Your task to perform on an android device: change timer sound Image 0: 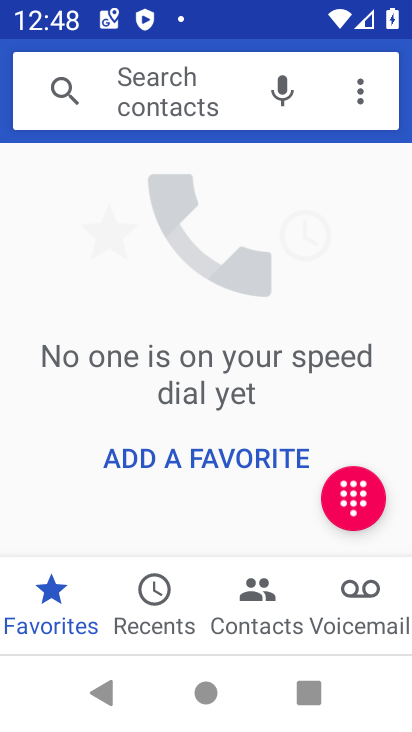
Step 0: press home button
Your task to perform on an android device: change timer sound Image 1: 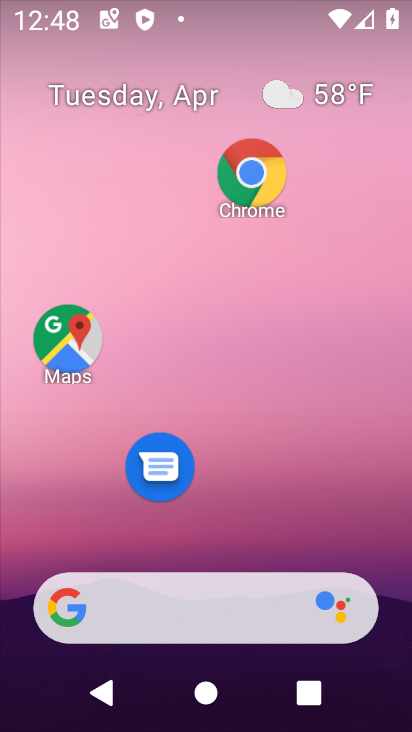
Step 1: drag from (290, 495) to (327, 1)
Your task to perform on an android device: change timer sound Image 2: 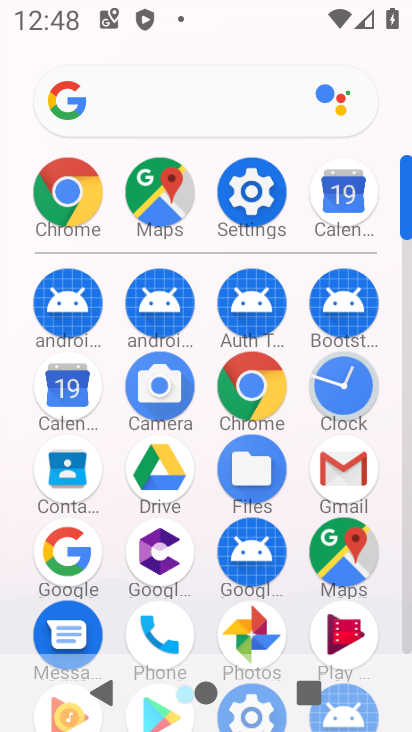
Step 2: click (336, 401)
Your task to perform on an android device: change timer sound Image 3: 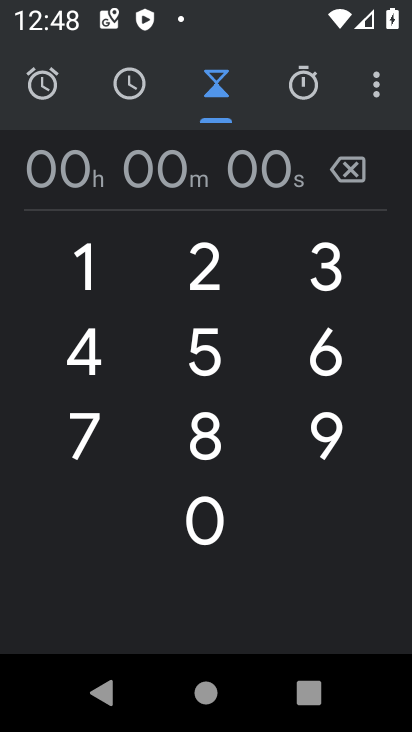
Step 3: click (373, 85)
Your task to perform on an android device: change timer sound Image 4: 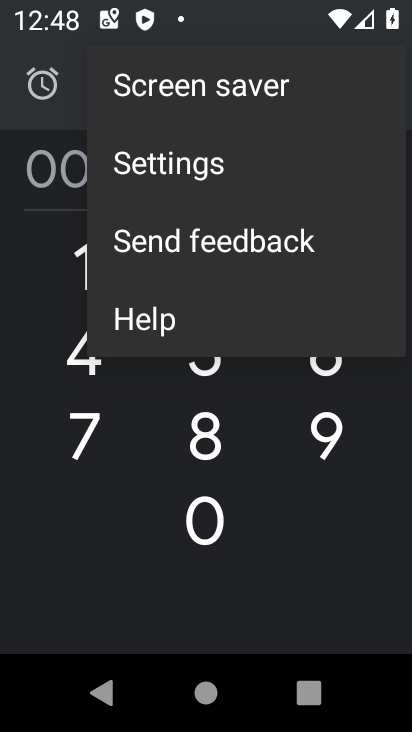
Step 4: click (208, 166)
Your task to perform on an android device: change timer sound Image 5: 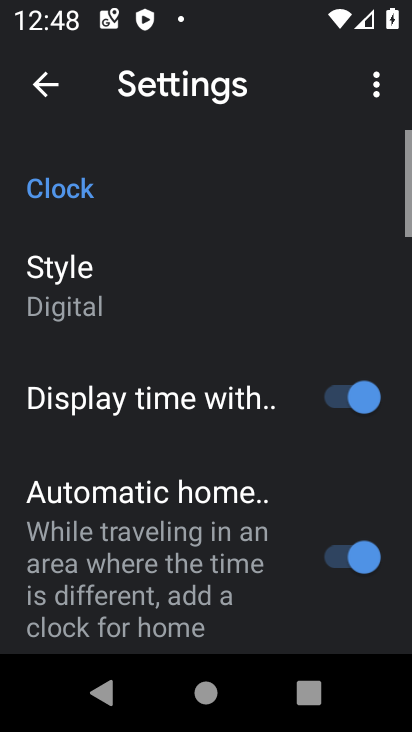
Step 5: drag from (226, 568) to (267, 139)
Your task to perform on an android device: change timer sound Image 6: 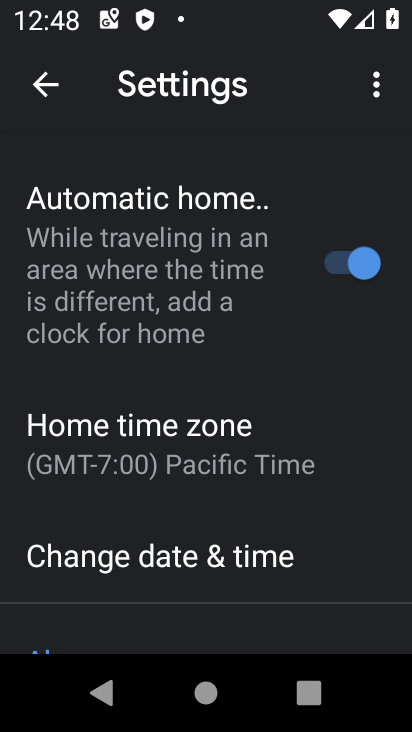
Step 6: drag from (248, 550) to (301, 230)
Your task to perform on an android device: change timer sound Image 7: 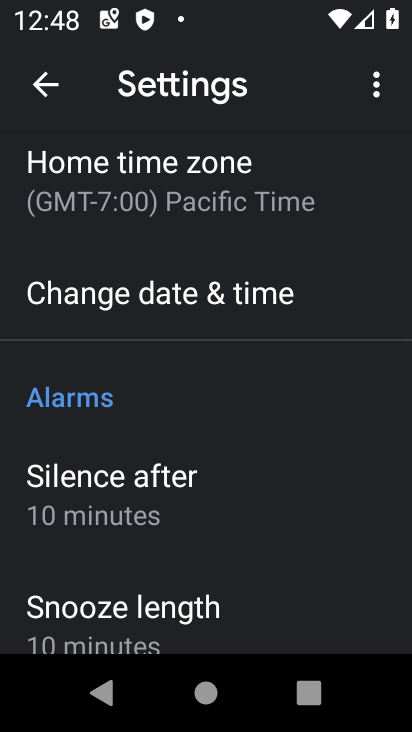
Step 7: drag from (250, 569) to (233, 160)
Your task to perform on an android device: change timer sound Image 8: 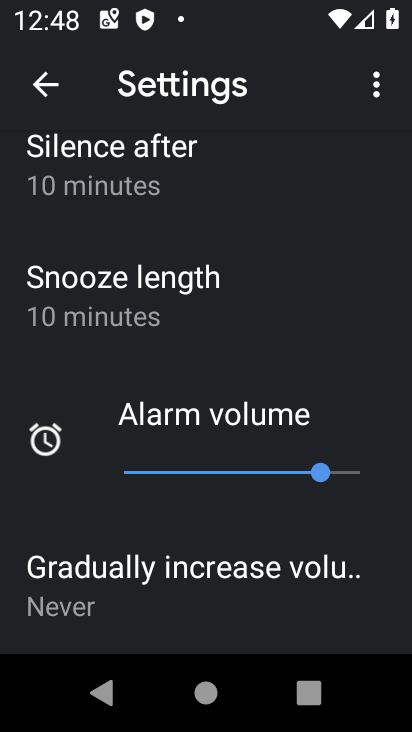
Step 8: drag from (164, 516) to (188, 122)
Your task to perform on an android device: change timer sound Image 9: 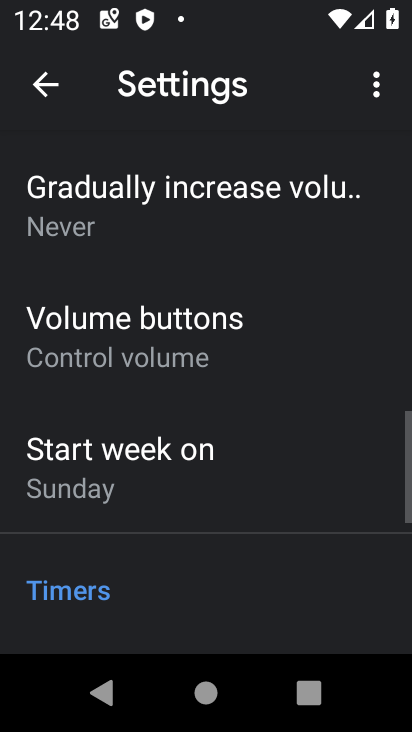
Step 9: drag from (166, 581) to (167, 200)
Your task to perform on an android device: change timer sound Image 10: 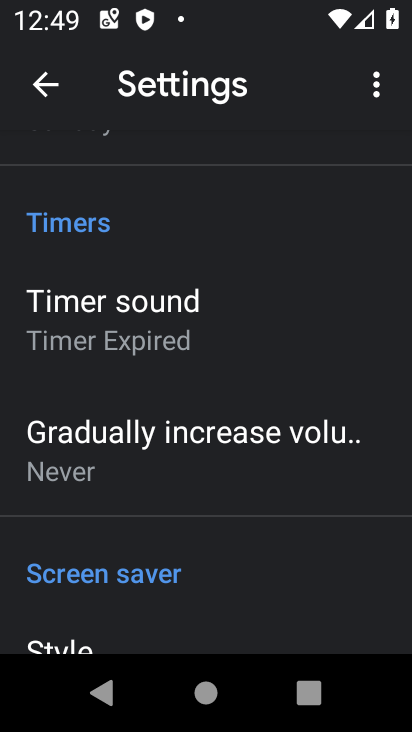
Step 10: click (123, 319)
Your task to perform on an android device: change timer sound Image 11: 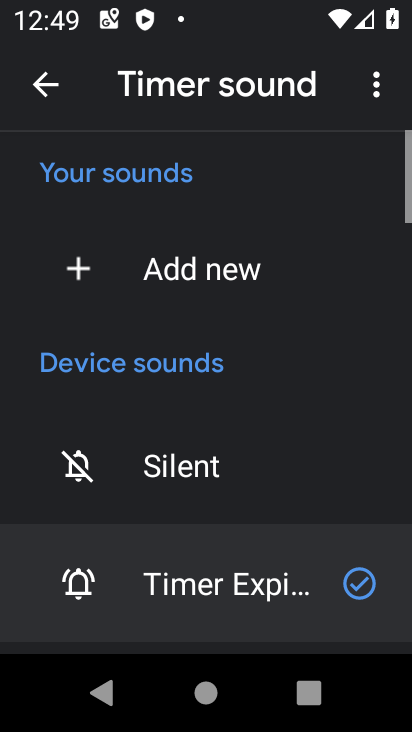
Step 11: drag from (158, 536) to (189, 150)
Your task to perform on an android device: change timer sound Image 12: 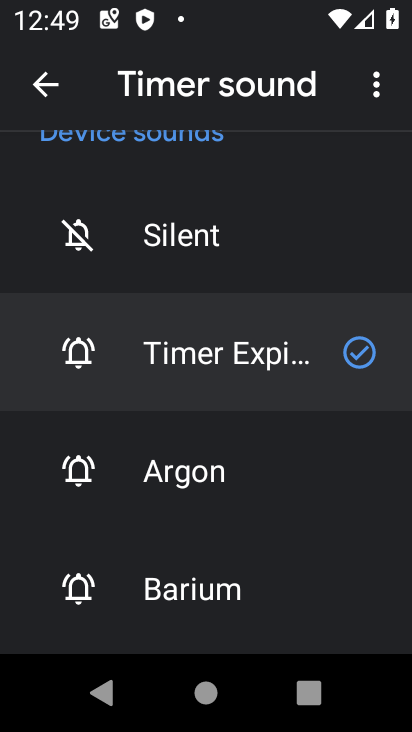
Step 12: click (210, 484)
Your task to perform on an android device: change timer sound Image 13: 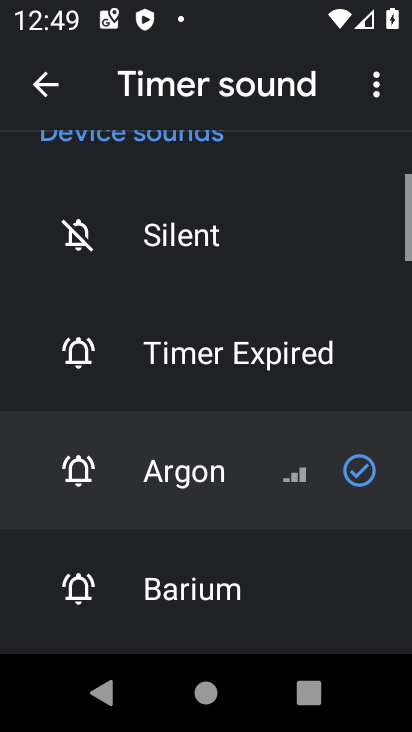
Step 13: task complete